Your task to perform on an android device: Search for good BBQ restaurants Image 0: 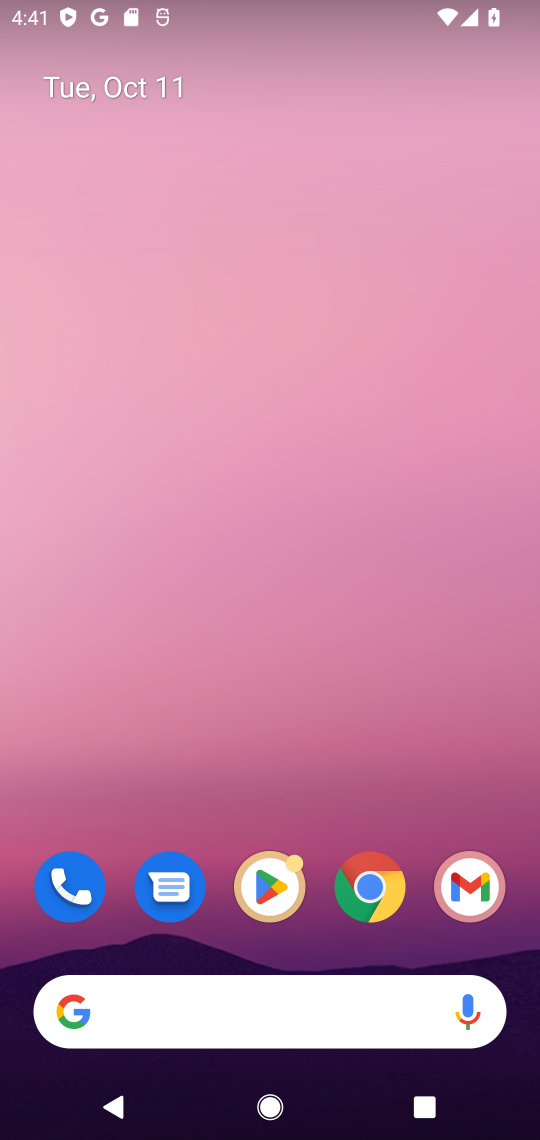
Step 0: click (231, 1021)
Your task to perform on an android device: Search for good BBQ restaurants Image 1: 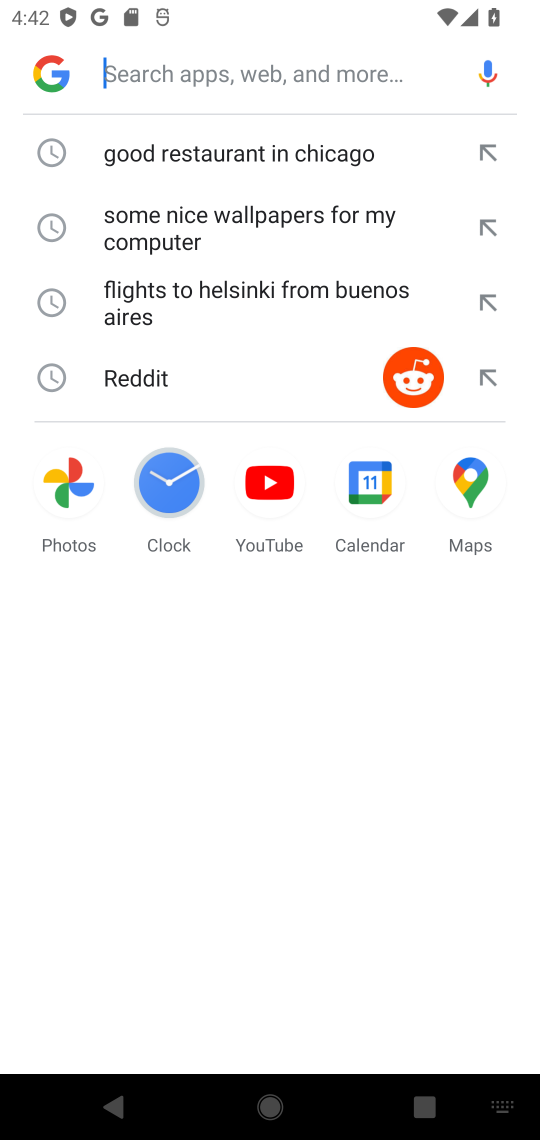
Step 1: type "good BBQ restaurants"
Your task to perform on an android device: Search for good BBQ restaurants Image 2: 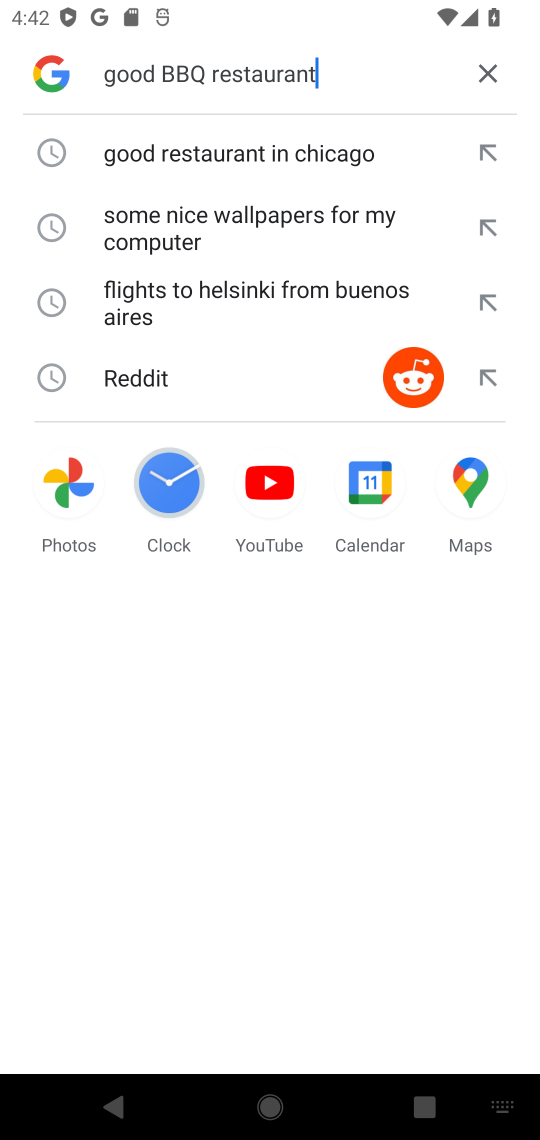
Step 2: type ""
Your task to perform on an android device: Search for good BBQ restaurants Image 3: 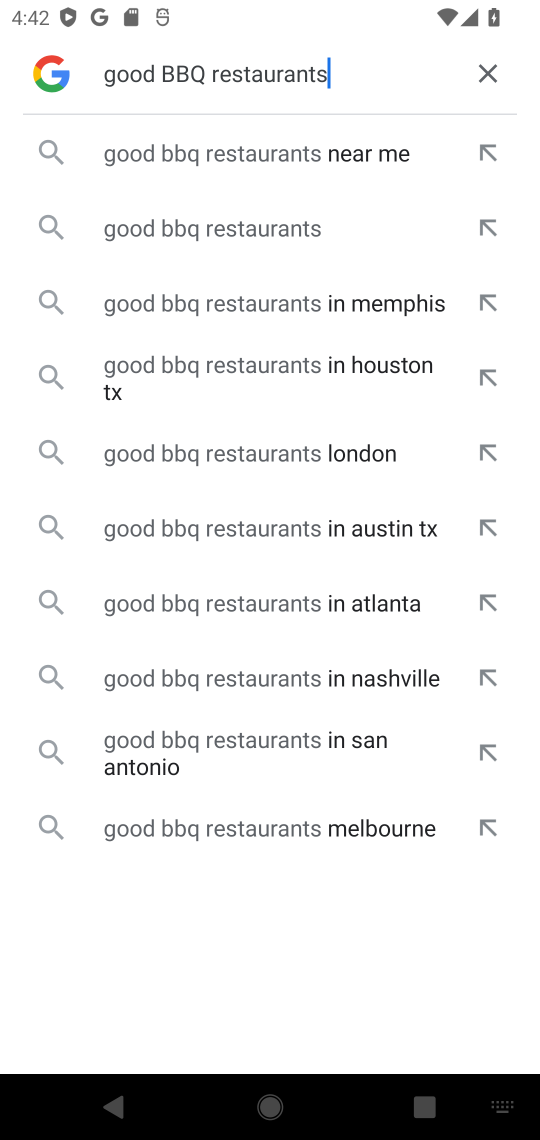
Step 3: click (310, 172)
Your task to perform on an android device: Search for good BBQ restaurants Image 4: 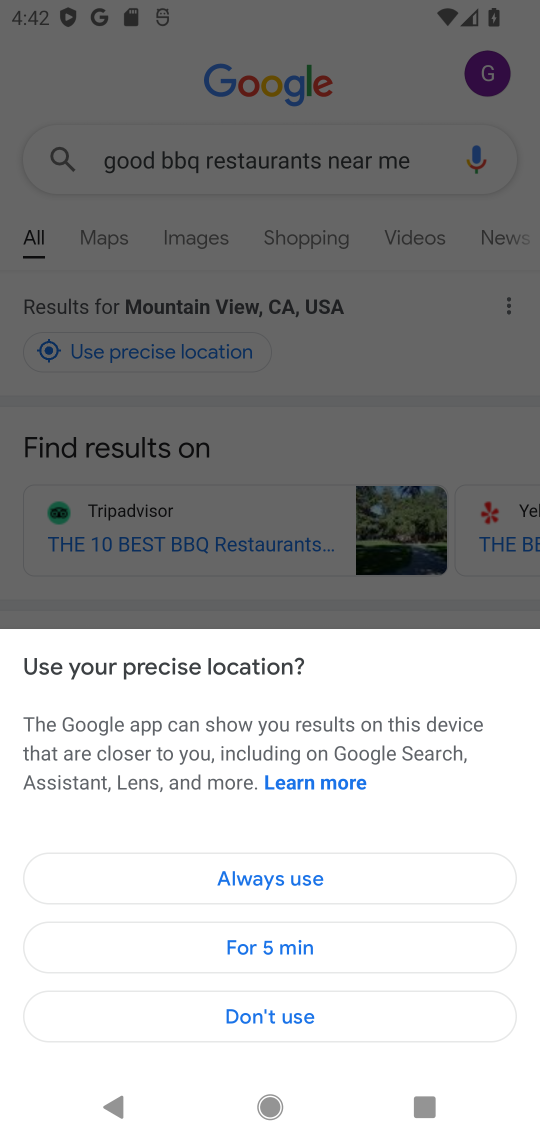
Step 4: click (266, 873)
Your task to perform on an android device: Search for good BBQ restaurants Image 5: 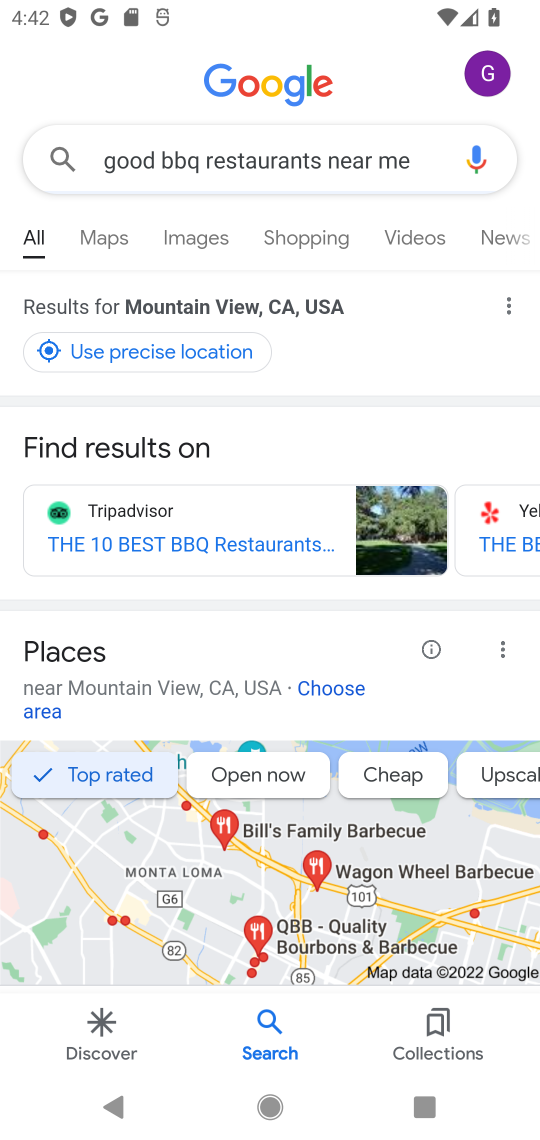
Step 5: drag from (240, 841) to (260, 387)
Your task to perform on an android device: Search for good BBQ restaurants Image 6: 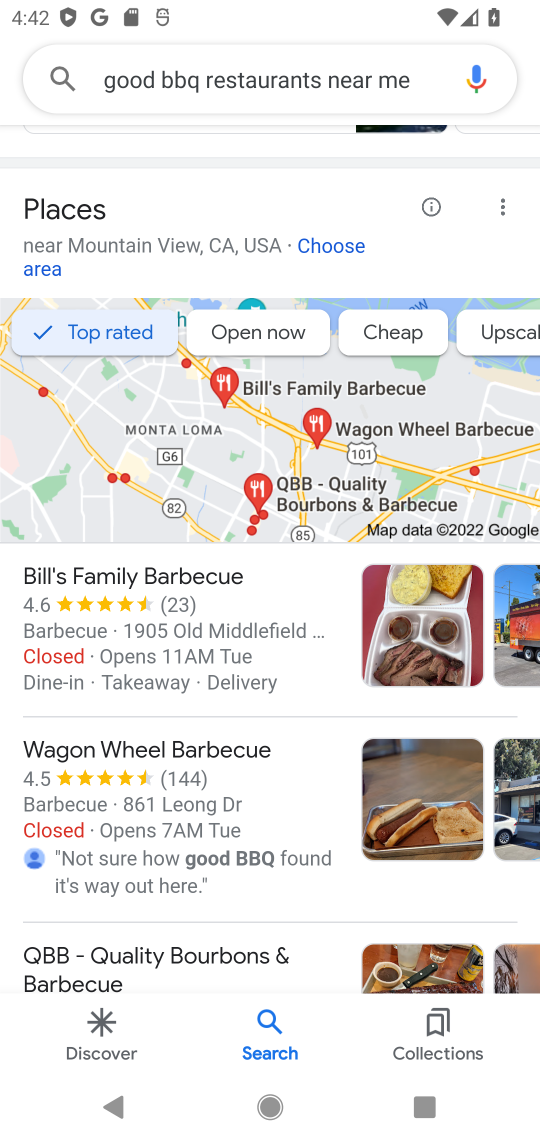
Step 6: drag from (263, 813) to (344, 400)
Your task to perform on an android device: Search for good BBQ restaurants Image 7: 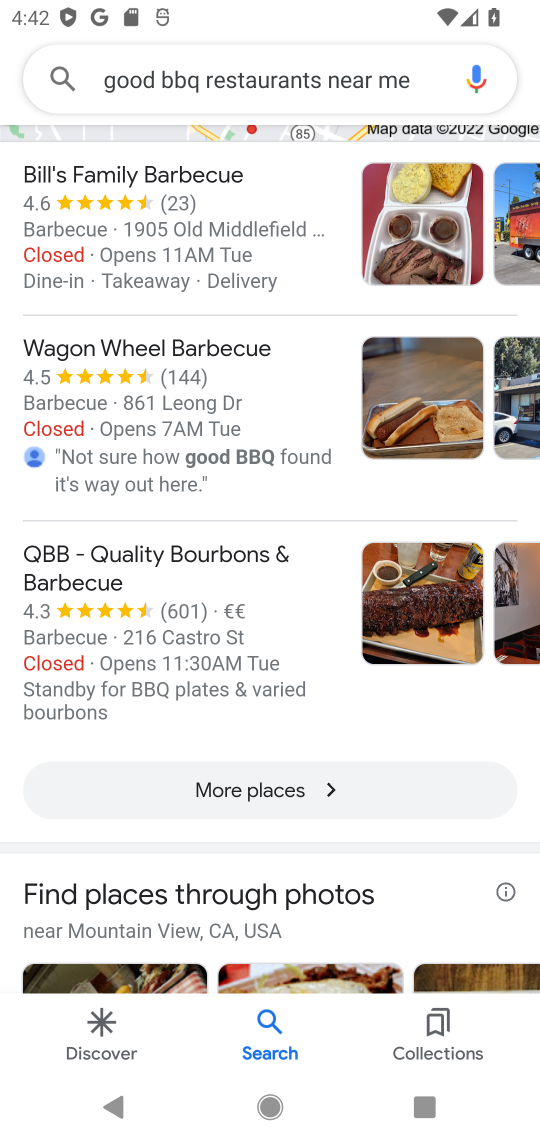
Step 7: click (257, 791)
Your task to perform on an android device: Search for good BBQ restaurants Image 8: 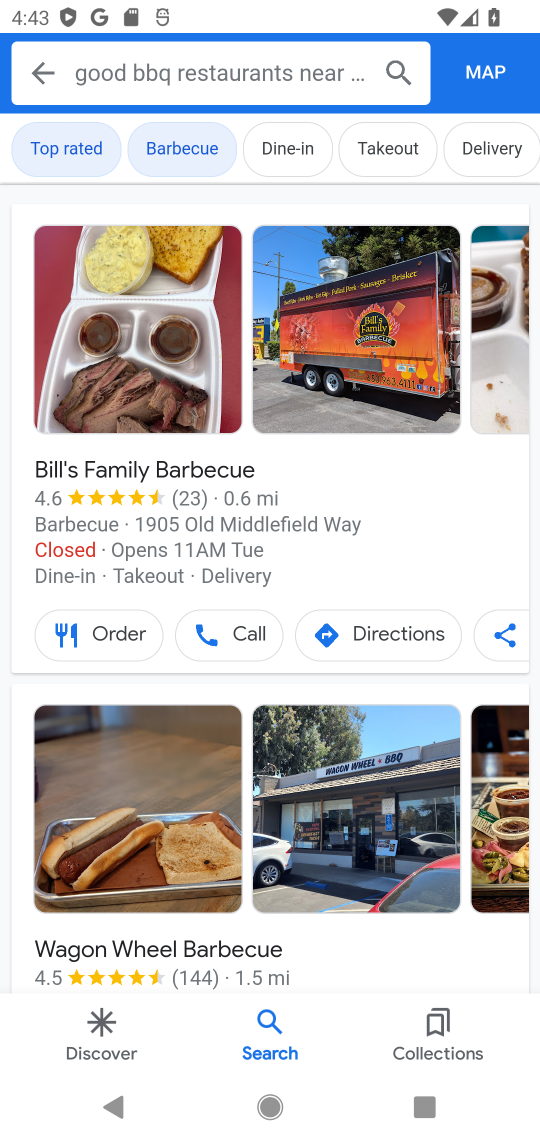
Step 8: task complete